Your task to perform on an android device: open a new tab in the chrome app Image 0: 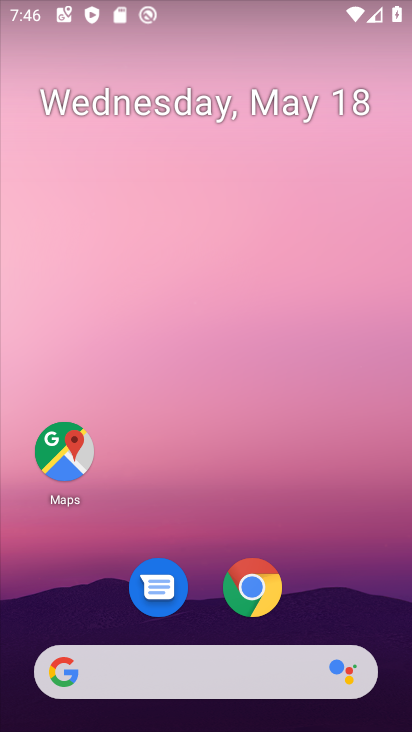
Step 0: click (251, 595)
Your task to perform on an android device: open a new tab in the chrome app Image 1: 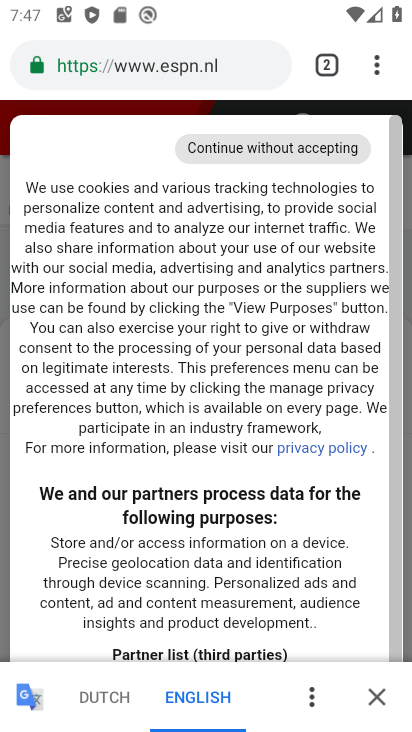
Step 1: click (323, 59)
Your task to perform on an android device: open a new tab in the chrome app Image 2: 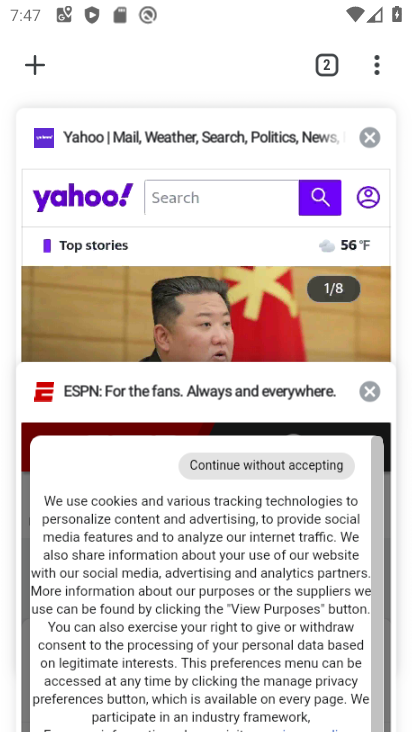
Step 2: click (44, 71)
Your task to perform on an android device: open a new tab in the chrome app Image 3: 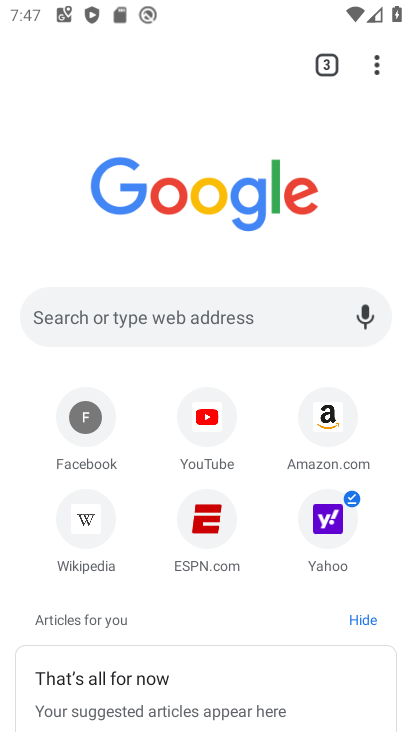
Step 3: task complete